Your task to perform on an android device: Open notification settings Image 0: 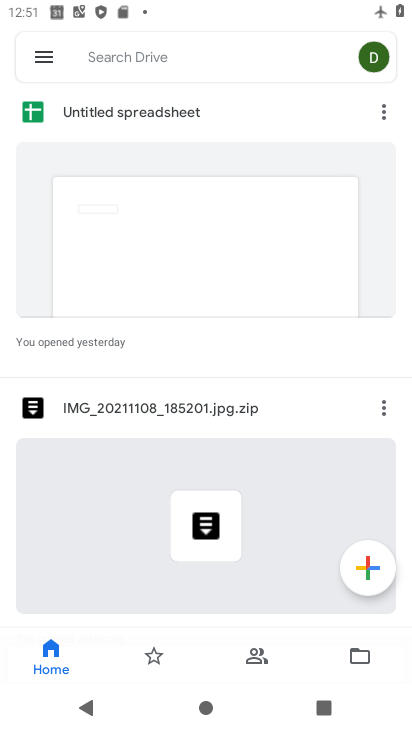
Step 0: press home button
Your task to perform on an android device: Open notification settings Image 1: 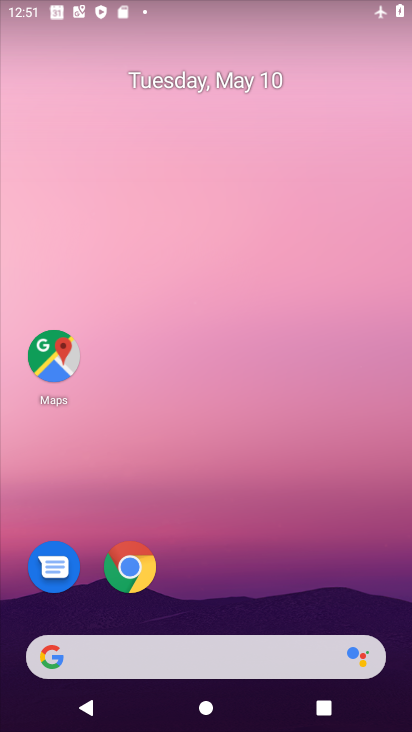
Step 1: drag from (393, 623) to (348, 97)
Your task to perform on an android device: Open notification settings Image 2: 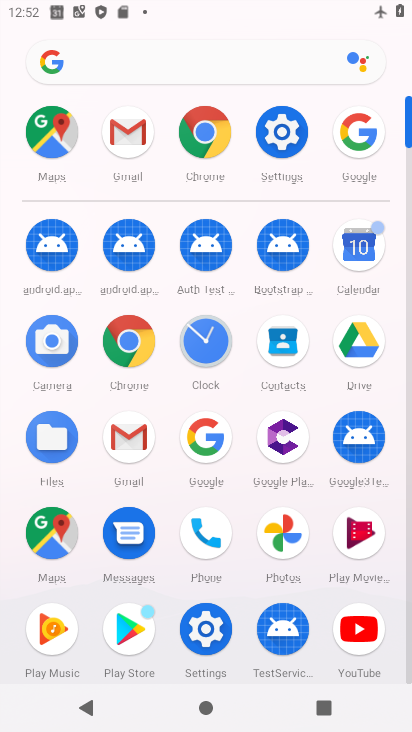
Step 2: click (204, 634)
Your task to perform on an android device: Open notification settings Image 3: 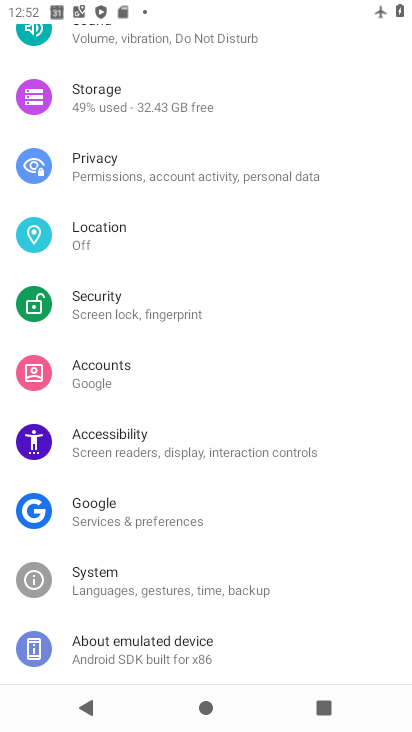
Step 3: drag from (219, 160) to (238, 554)
Your task to perform on an android device: Open notification settings Image 4: 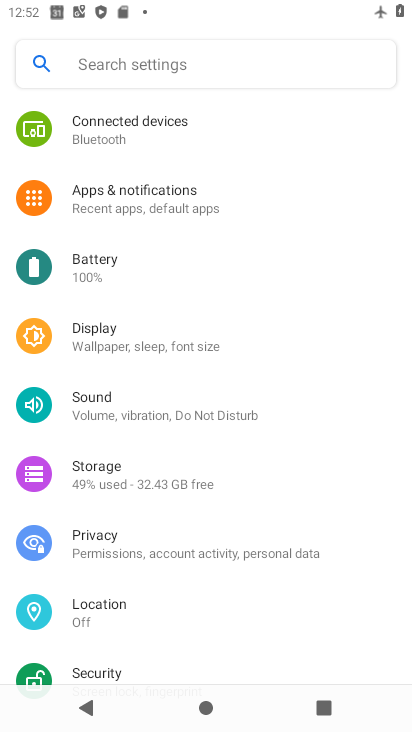
Step 4: click (187, 197)
Your task to perform on an android device: Open notification settings Image 5: 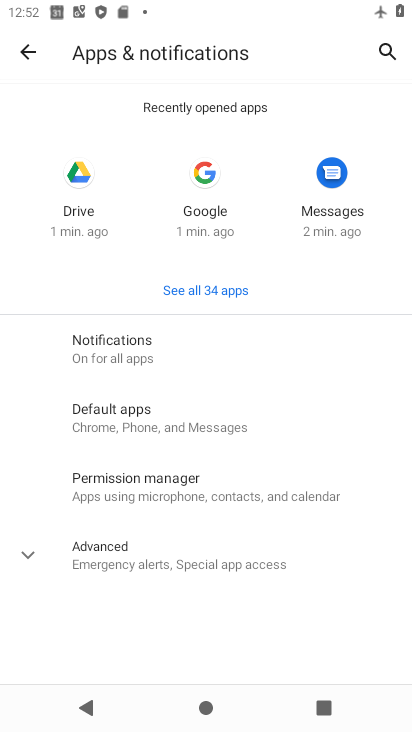
Step 5: click (136, 337)
Your task to perform on an android device: Open notification settings Image 6: 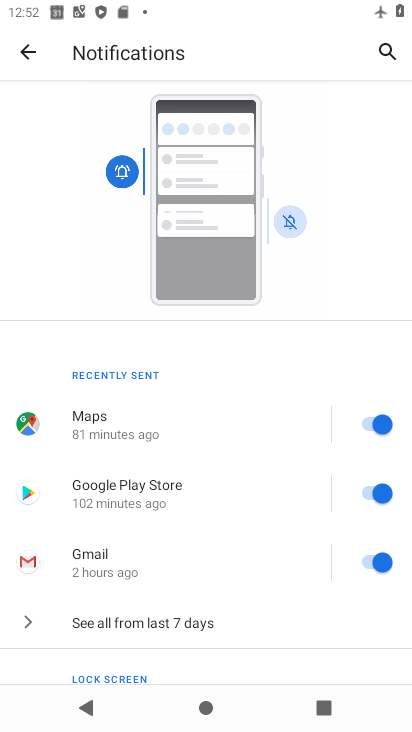
Step 6: task complete